Your task to perform on an android device: What's the weather going to be tomorrow? Image 0: 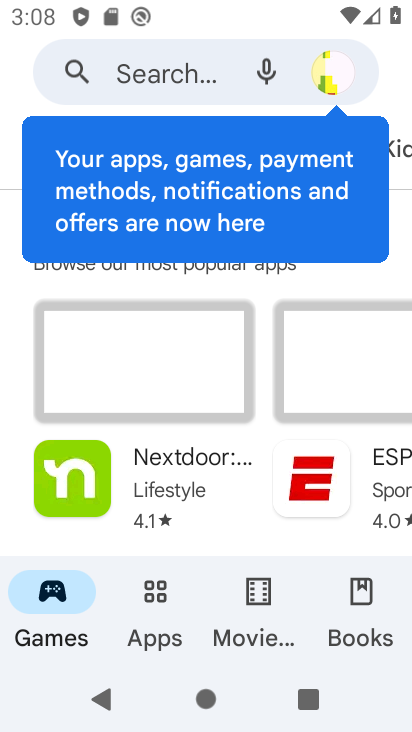
Step 0: press home button
Your task to perform on an android device: What's the weather going to be tomorrow? Image 1: 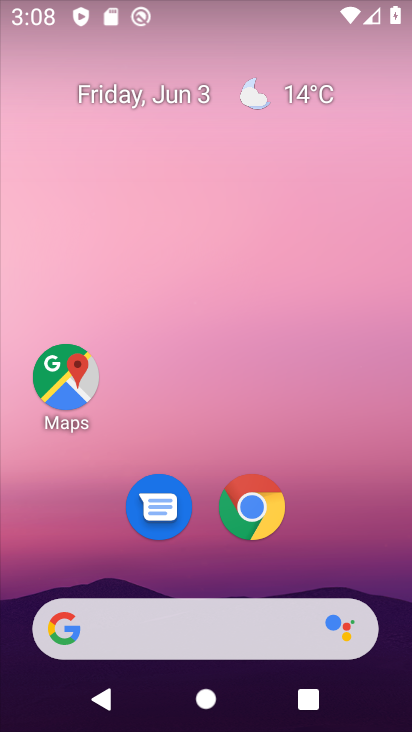
Step 1: click (244, 505)
Your task to perform on an android device: What's the weather going to be tomorrow? Image 2: 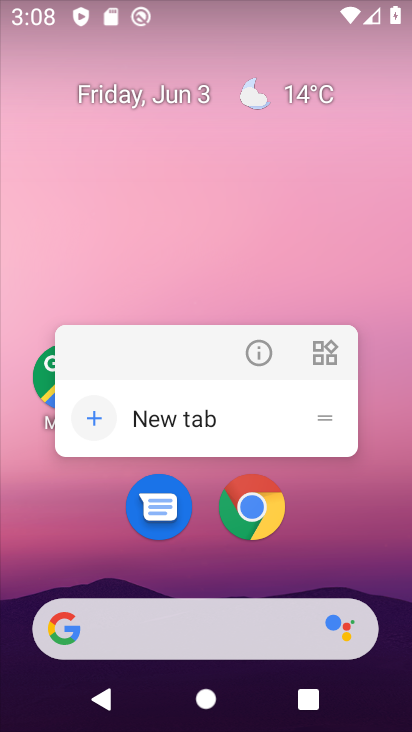
Step 2: click (264, 357)
Your task to perform on an android device: What's the weather going to be tomorrow? Image 3: 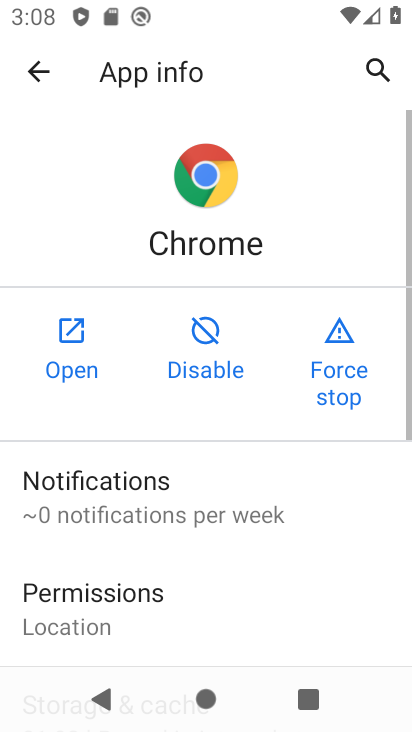
Step 3: click (88, 366)
Your task to perform on an android device: What's the weather going to be tomorrow? Image 4: 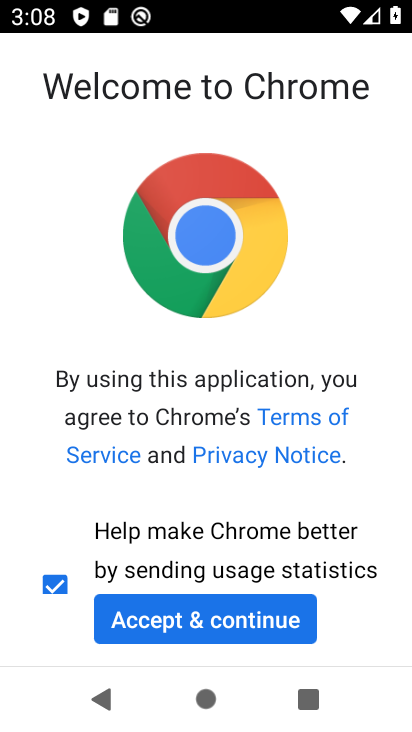
Step 4: click (215, 630)
Your task to perform on an android device: What's the weather going to be tomorrow? Image 5: 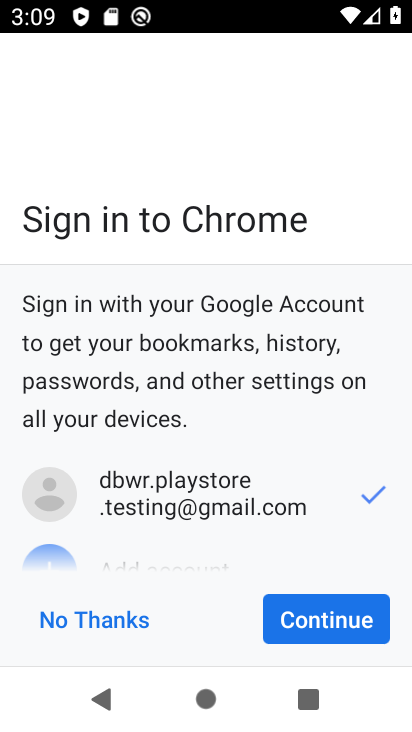
Step 5: click (342, 615)
Your task to perform on an android device: What's the weather going to be tomorrow? Image 6: 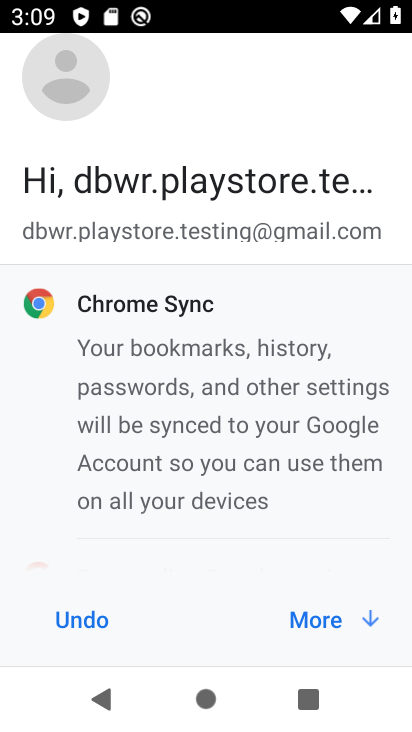
Step 6: click (342, 633)
Your task to perform on an android device: What's the weather going to be tomorrow? Image 7: 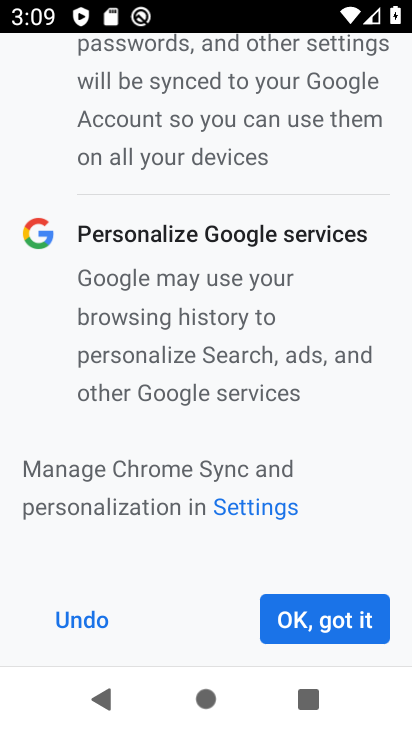
Step 7: click (288, 628)
Your task to perform on an android device: What's the weather going to be tomorrow? Image 8: 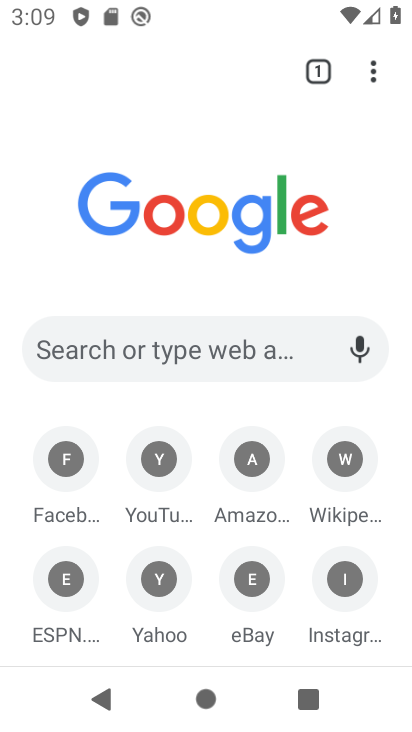
Step 8: click (113, 349)
Your task to perform on an android device: What's the weather going to be tomorrow? Image 9: 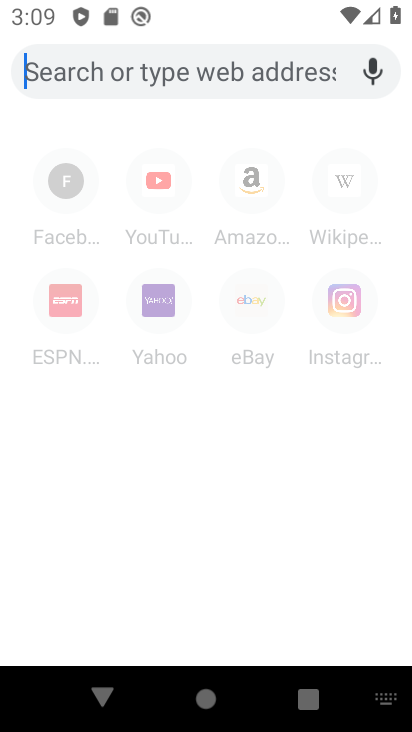
Step 9: type "https://device-portal.corp.google.com/#/"
Your task to perform on an android device: What's the weather going to be tomorrow? Image 10: 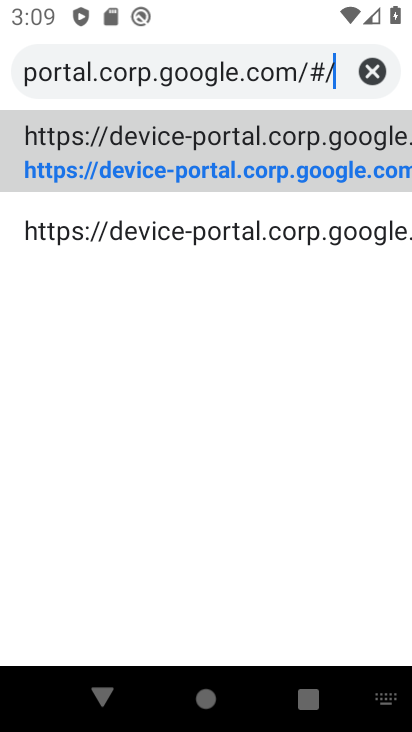
Step 10: type "What's the weather going to be tomorrow?"
Your task to perform on an android device: What's the weather going to be tomorrow? Image 11: 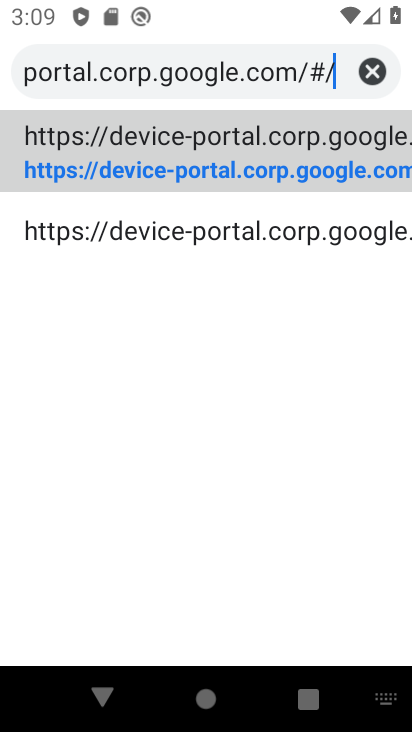
Step 11: click (371, 71)
Your task to perform on an android device: What's the weather going to be tomorrow? Image 12: 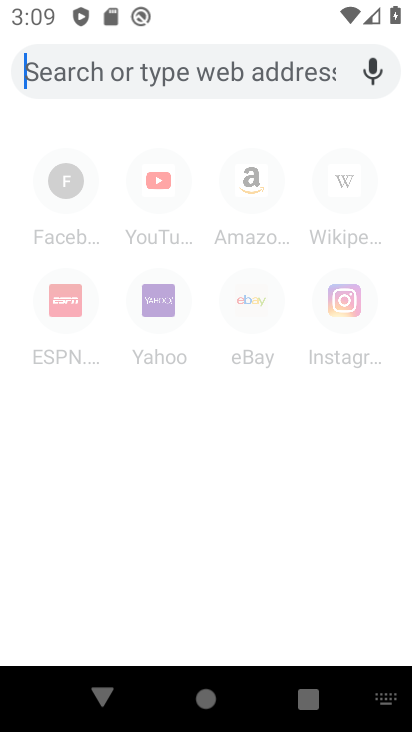
Step 12: type "What's the weather going to be tomorrow?"
Your task to perform on an android device: What's the weather going to be tomorrow? Image 13: 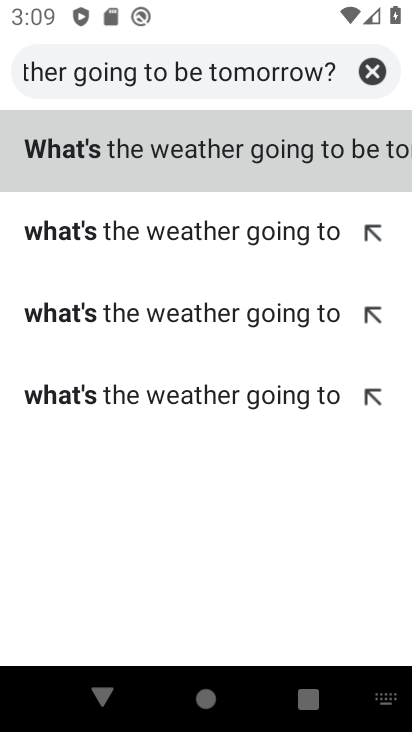
Step 13: click (54, 161)
Your task to perform on an android device: What's the weather going to be tomorrow? Image 14: 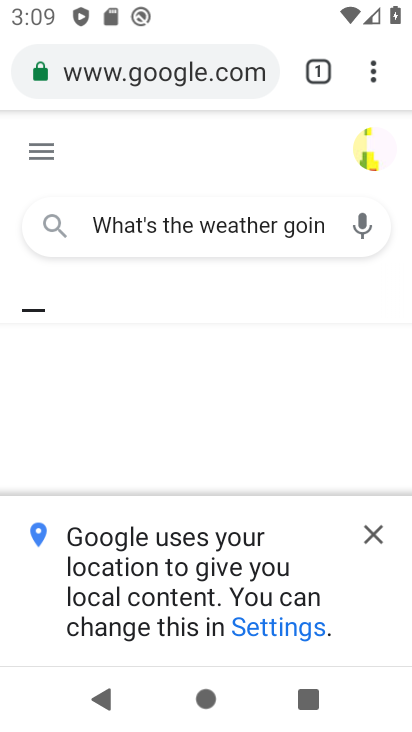
Step 14: click (366, 530)
Your task to perform on an android device: What's the weather going to be tomorrow? Image 15: 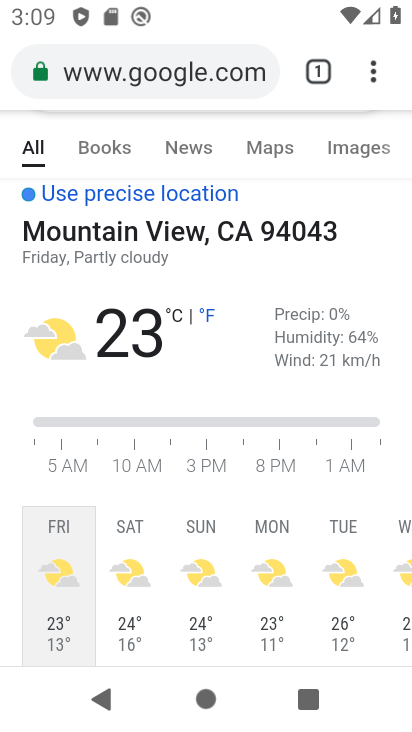
Step 15: task complete